Your task to perform on an android device: turn on the 24-hour format for clock Image 0: 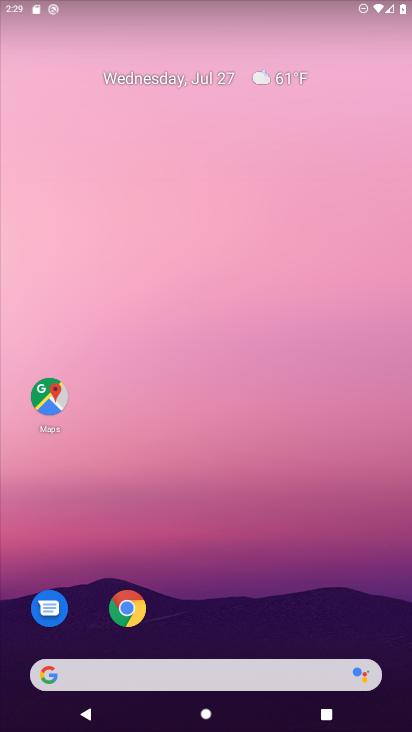
Step 0: drag from (199, 632) to (158, 91)
Your task to perform on an android device: turn on the 24-hour format for clock Image 1: 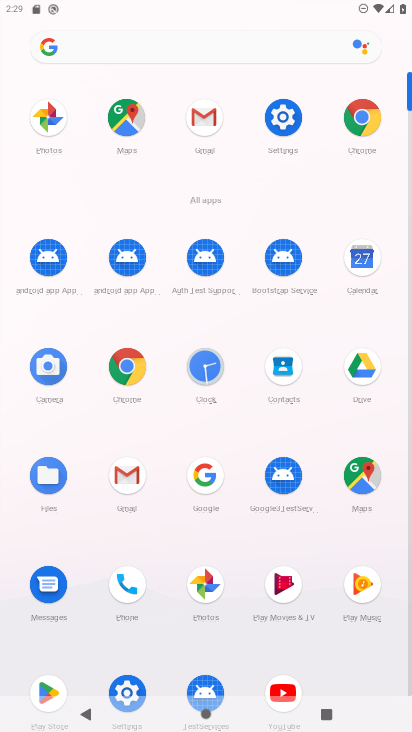
Step 1: click (209, 369)
Your task to perform on an android device: turn on the 24-hour format for clock Image 2: 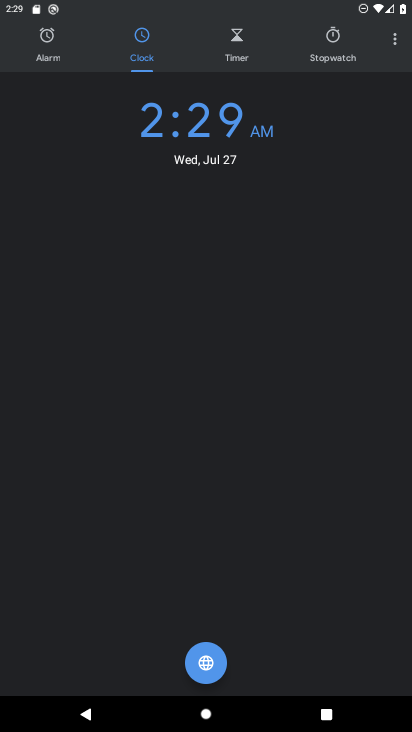
Step 2: click (397, 41)
Your task to perform on an android device: turn on the 24-hour format for clock Image 3: 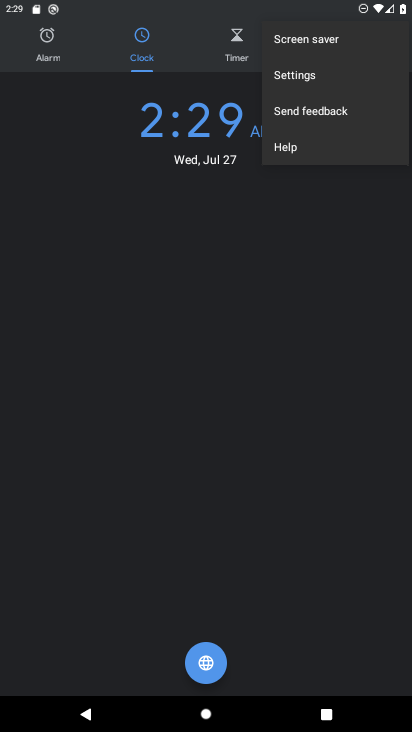
Step 3: click (334, 84)
Your task to perform on an android device: turn on the 24-hour format for clock Image 4: 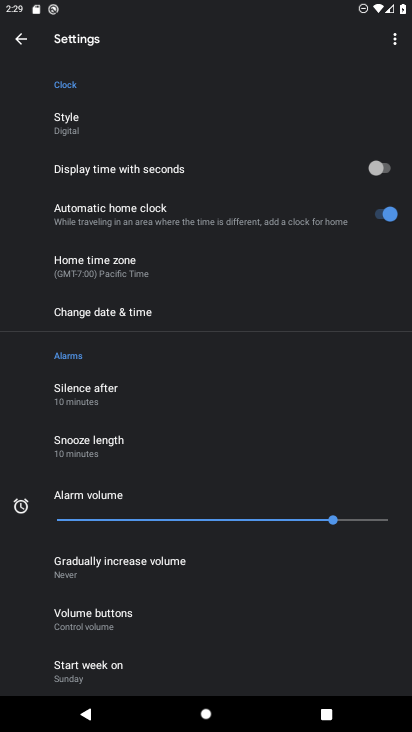
Step 4: click (181, 305)
Your task to perform on an android device: turn on the 24-hour format for clock Image 5: 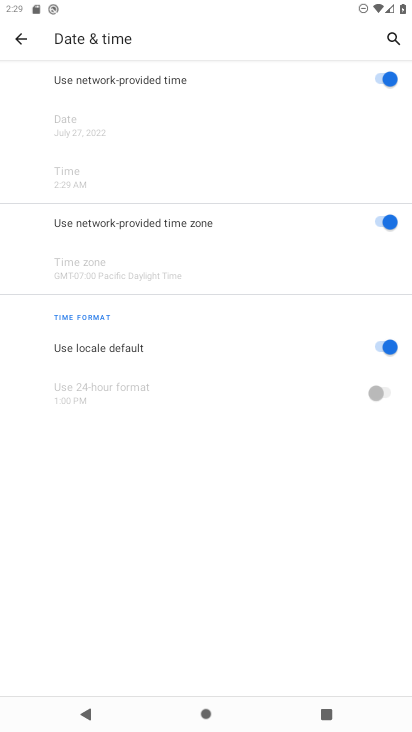
Step 5: click (378, 351)
Your task to perform on an android device: turn on the 24-hour format for clock Image 6: 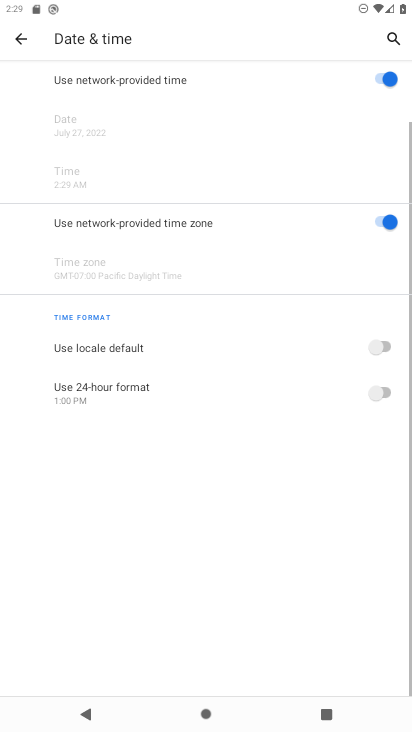
Step 6: click (381, 397)
Your task to perform on an android device: turn on the 24-hour format for clock Image 7: 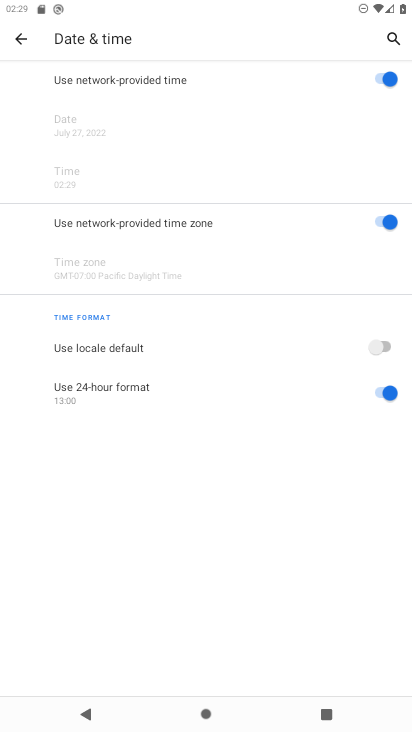
Step 7: task complete